Your task to perform on an android device: Is it going to rain tomorrow? Image 0: 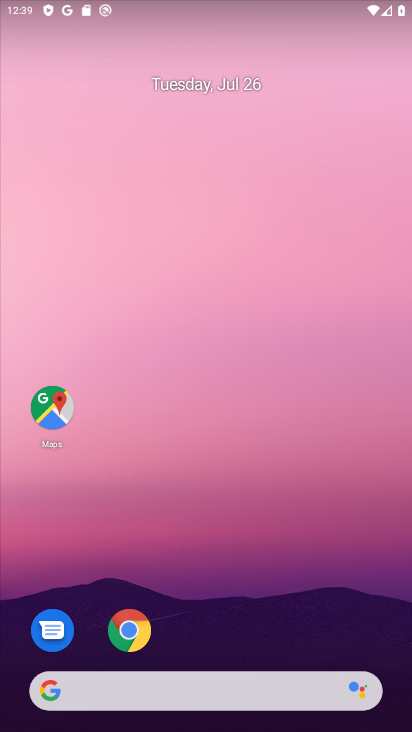
Step 0: drag from (184, 502) to (201, 123)
Your task to perform on an android device: Is it going to rain tomorrow? Image 1: 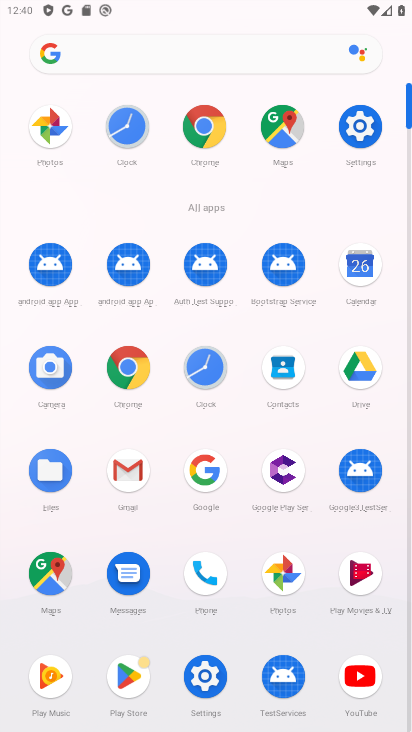
Step 1: click (209, 492)
Your task to perform on an android device: Is it going to rain tomorrow? Image 2: 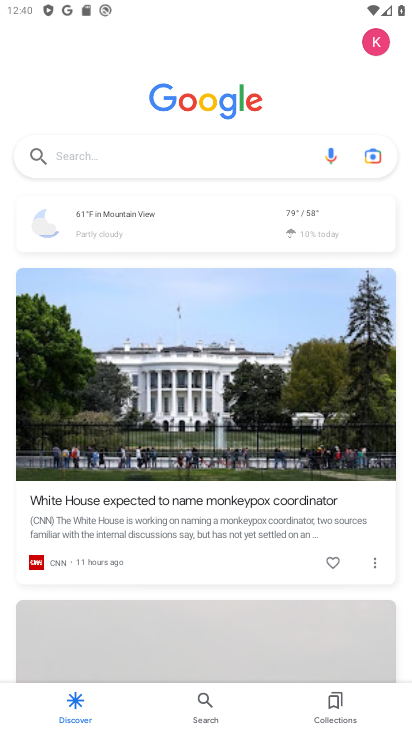
Step 2: click (104, 153)
Your task to perform on an android device: Is it going to rain tomorrow? Image 3: 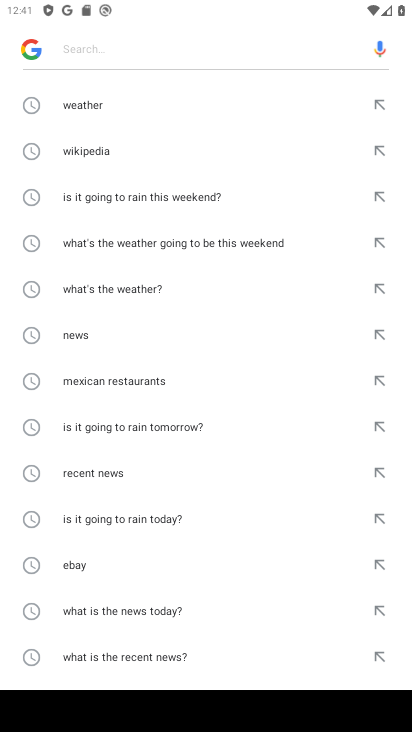
Step 3: type "wheather"
Your task to perform on an android device: Is it going to rain tomorrow? Image 4: 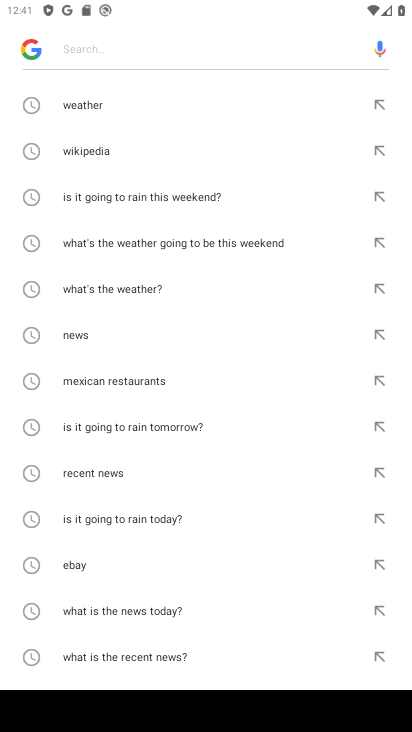
Step 4: click (79, 105)
Your task to perform on an android device: Is it going to rain tomorrow? Image 5: 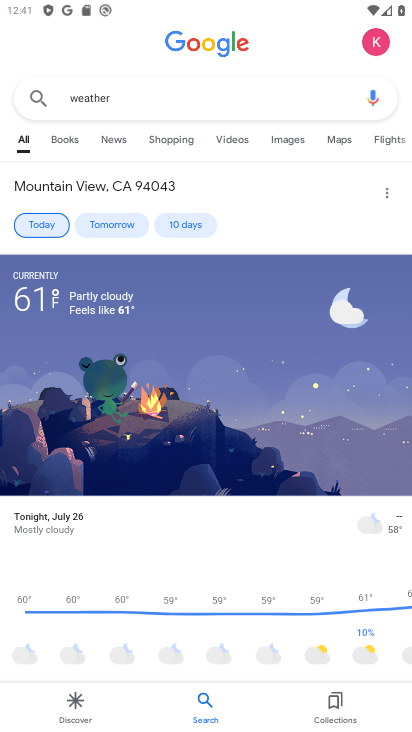
Step 5: click (103, 227)
Your task to perform on an android device: Is it going to rain tomorrow? Image 6: 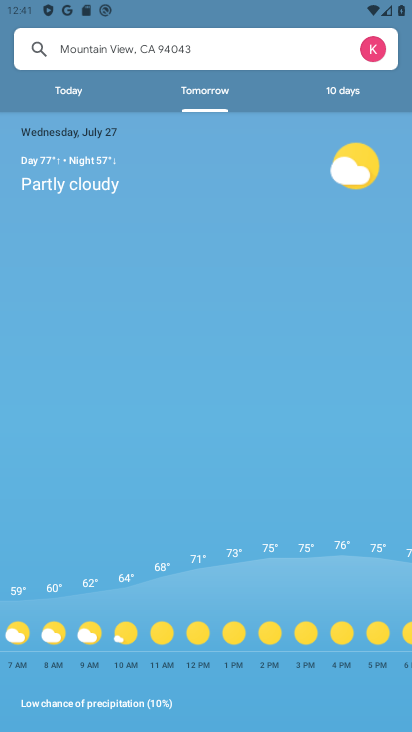
Step 6: task complete